Your task to perform on an android device: Is it going to rain today? Image 0: 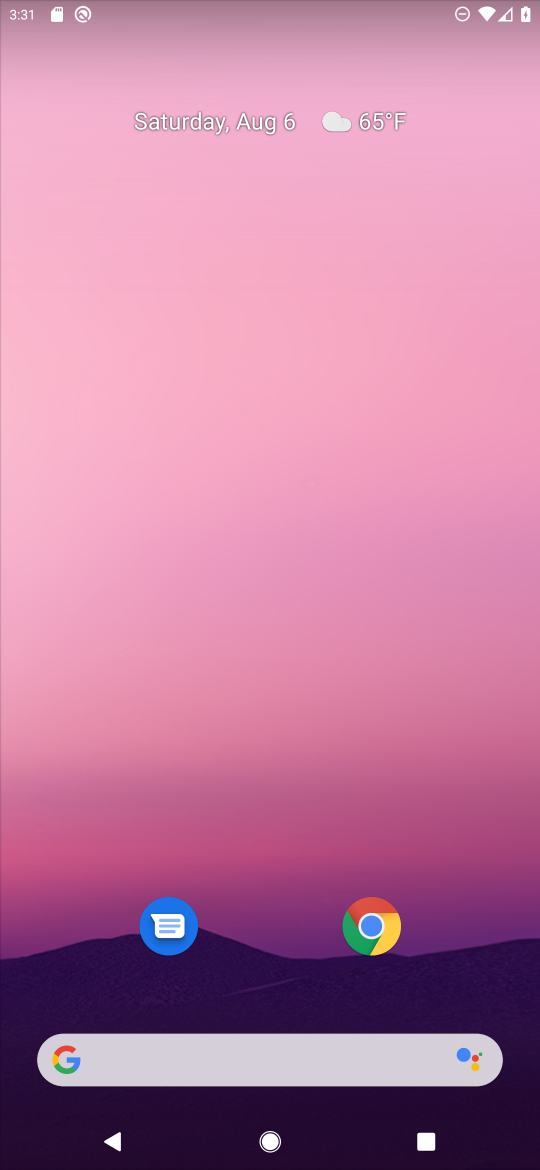
Step 0: drag from (280, 964) to (277, 265)
Your task to perform on an android device: Is it going to rain today? Image 1: 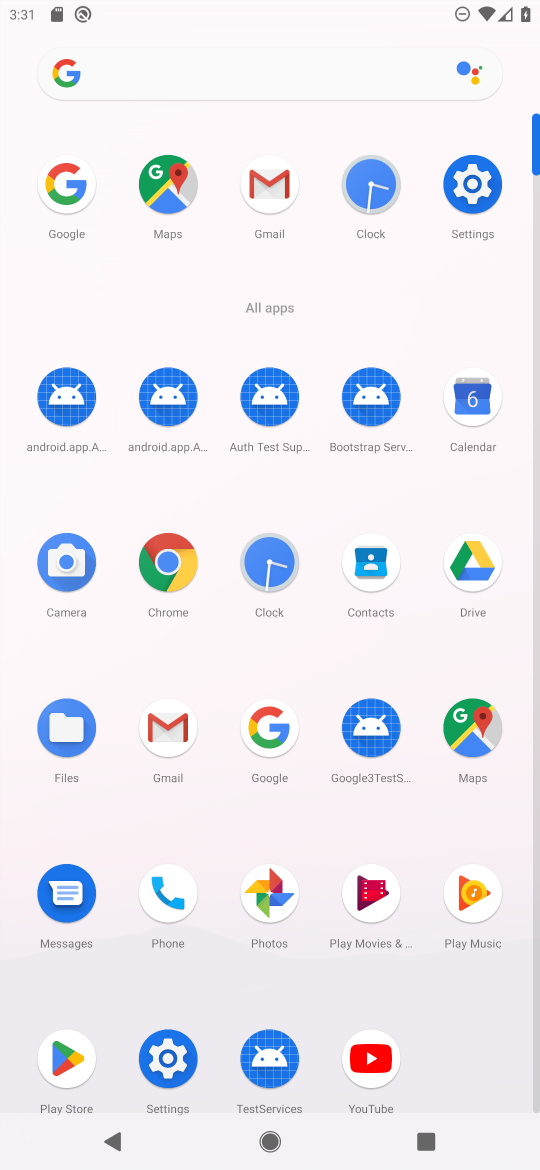
Step 1: click (94, 182)
Your task to perform on an android device: Is it going to rain today? Image 2: 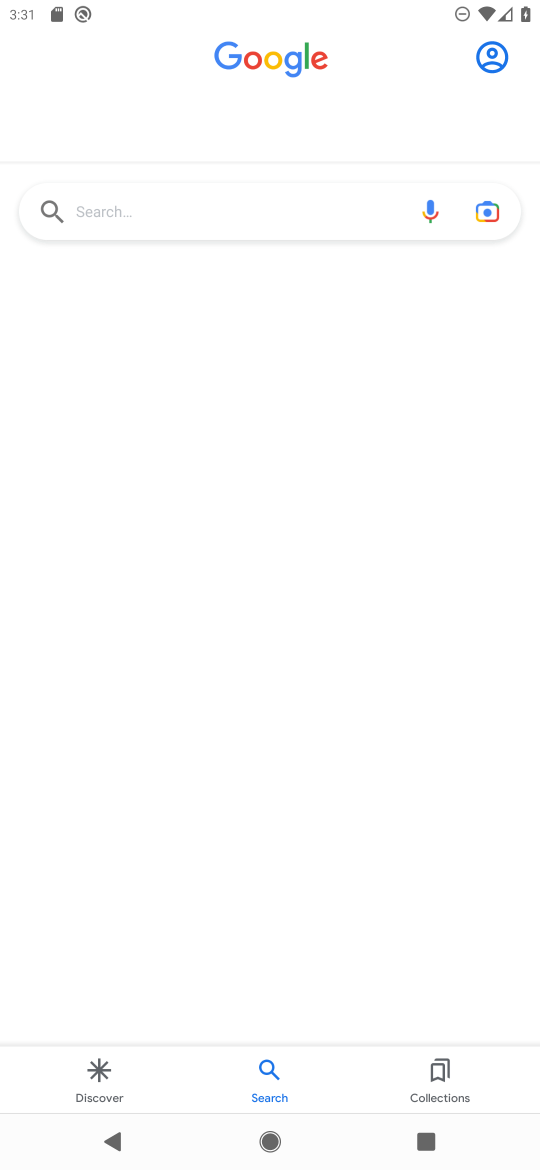
Step 2: click (145, 203)
Your task to perform on an android device: Is it going to rain today? Image 3: 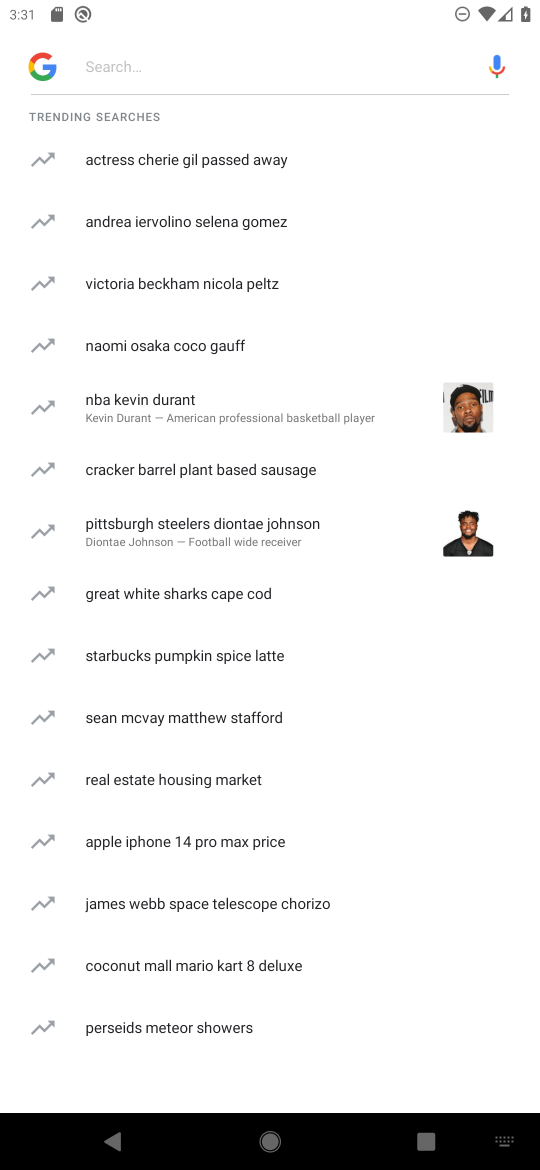
Step 3: type "weather"
Your task to perform on an android device: Is it going to rain today? Image 4: 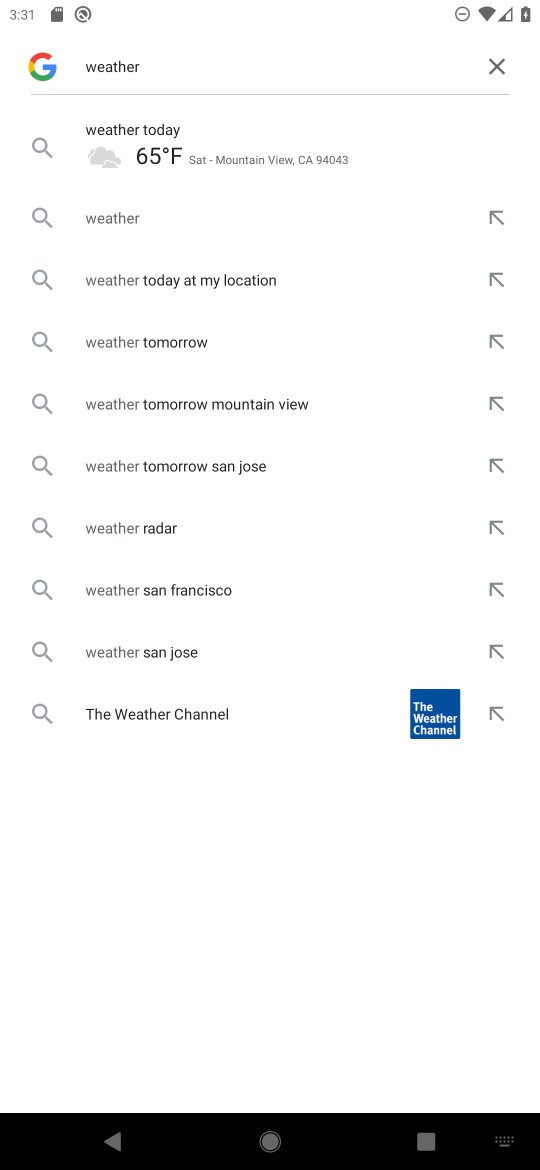
Step 4: click (246, 146)
Your task to perform on an android device: Is it going to rain today? Image 5: 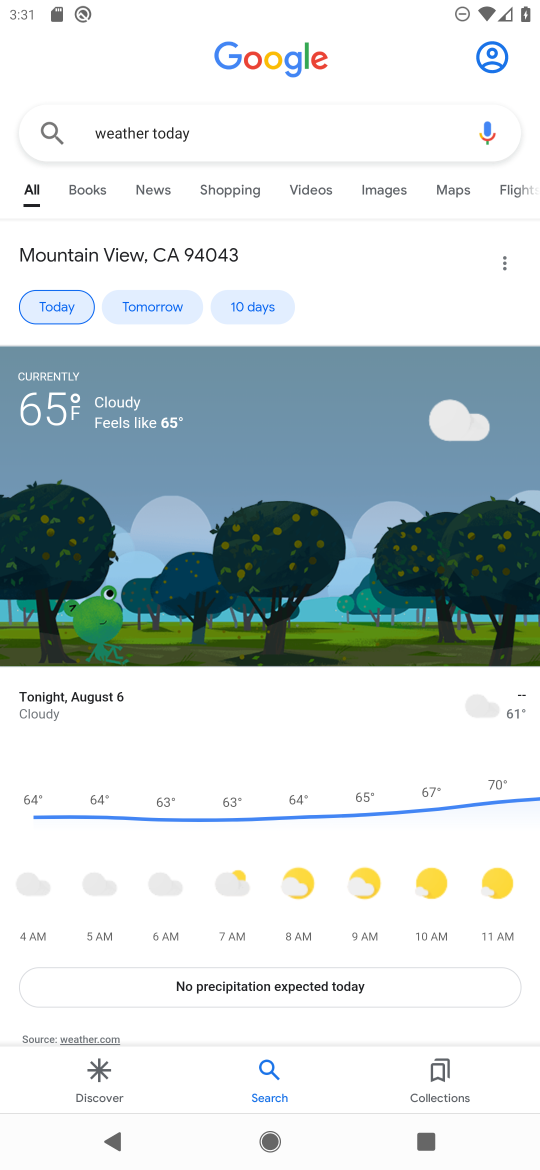
Step 5: task complete